Your task to perform on an android device: find photos in the google photos app Image 0: 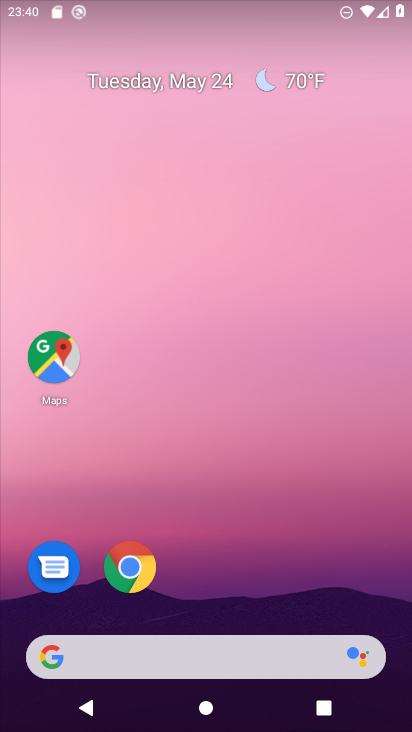
Step 0: drag from (268, 391) to (136, 17)
Your task to perform on an android device: find photos in the google photos app Image 1: 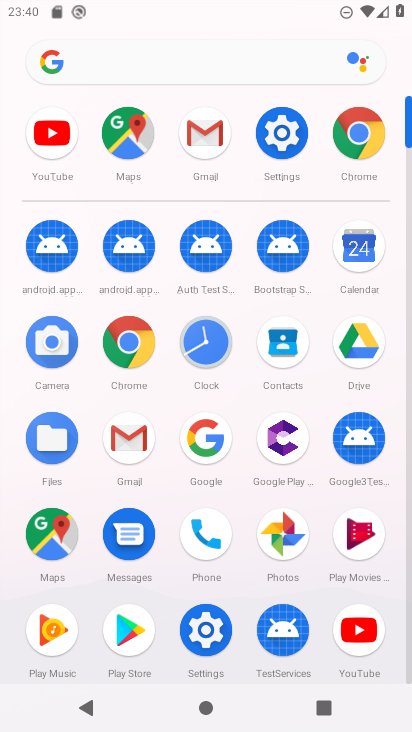
Step 1: click (265, 529)
Your task to perform on an android device: find photos in the google photos app Image 2: 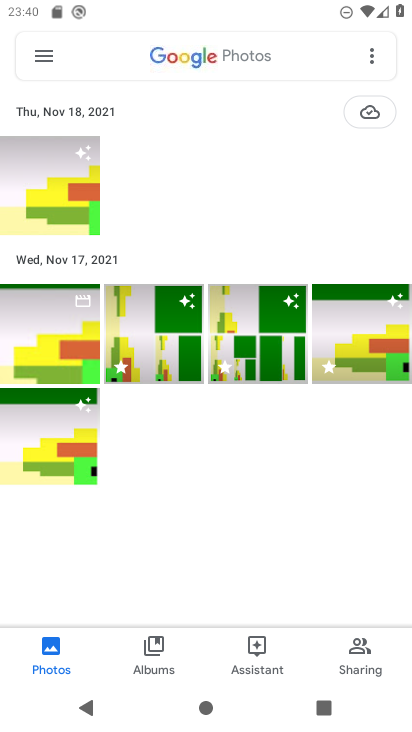
Step 2: click (42, 653)
Your task to perform on an android device: find photos in the google photos app Image 3: 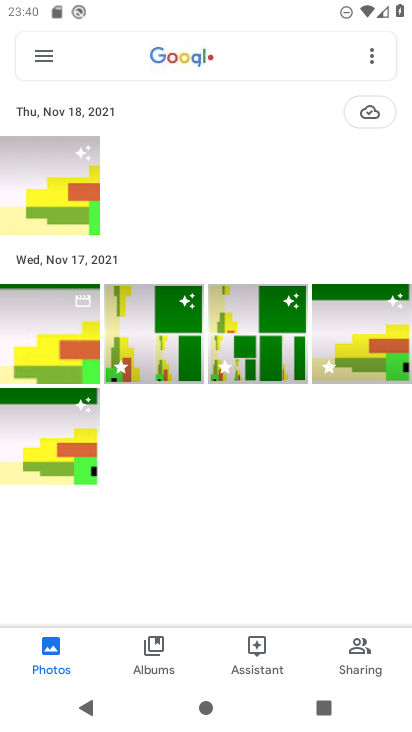
Step 3: task complete